Your task to perform on an android device: turn off javascript in the chrome app Image 0: 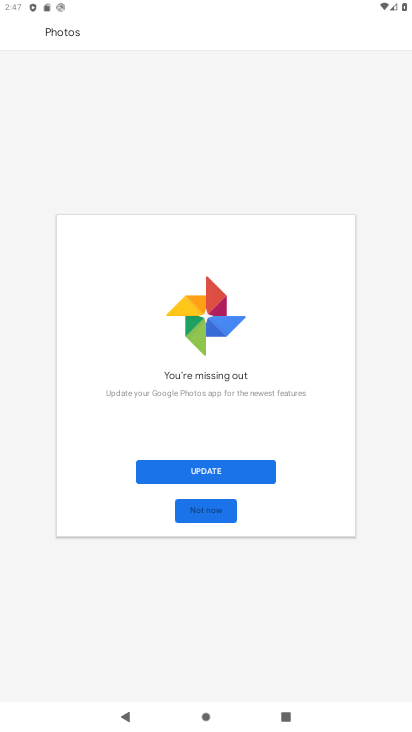
Step 0: press home button
Your task to perform on an android device: turn off javascript in the chrome app Image 1: 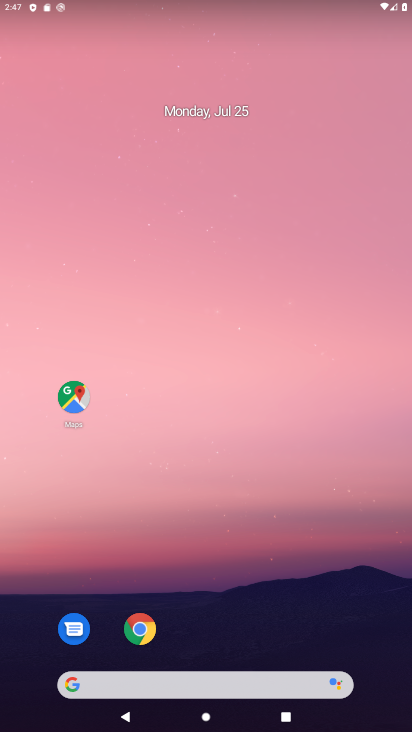
Step 1: click (140, 639)
Your task to perform on an android device: turn off javascript in the chrome app Image 2: 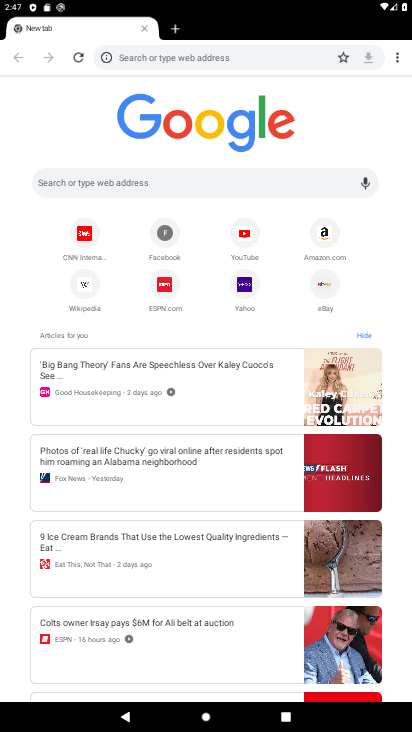
Step 2: drag from (396, 55) to (273, 264)
Your task to perform on an android device: turn off javascript in the chrome app Image 3: 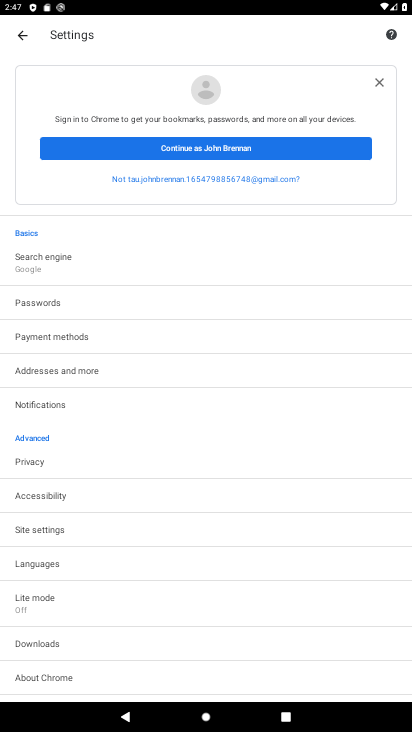
Step 3: click (35, 532)
Your task to perform on an android device: turn off javascript in the chrome app Image 4: 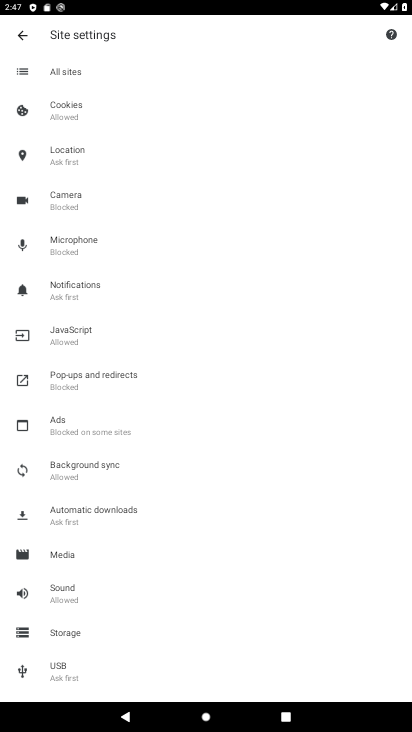
Step 4: click (60, 333)
Your task to perform on an android device: turn off javascript in the chrome app Image 5: 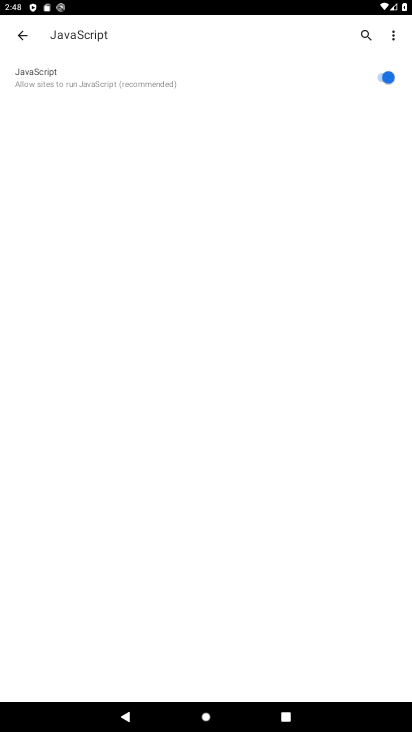
Step 5: click (395, 77)
Your task to perform on an android device: turn off javascript in the chrome app Image 6: 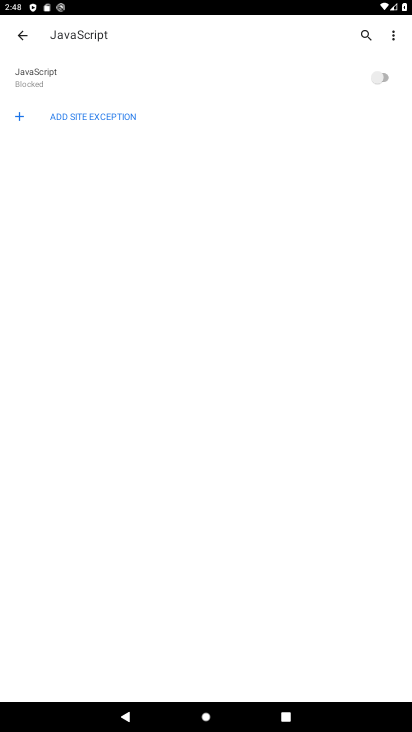
Step 6: task complete